Your task to perform on an android device: What's the weather going to be tomorrow? Image 0: 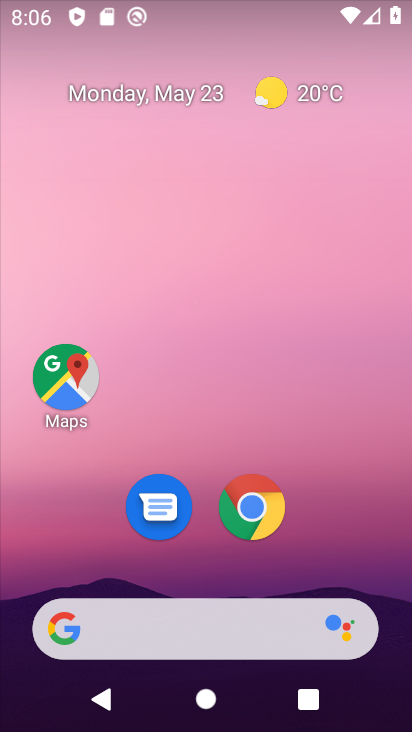
Step 0: click (319, 101)
Your task to perform on an android device: What's the weather going to be tomorrow? Image 1: 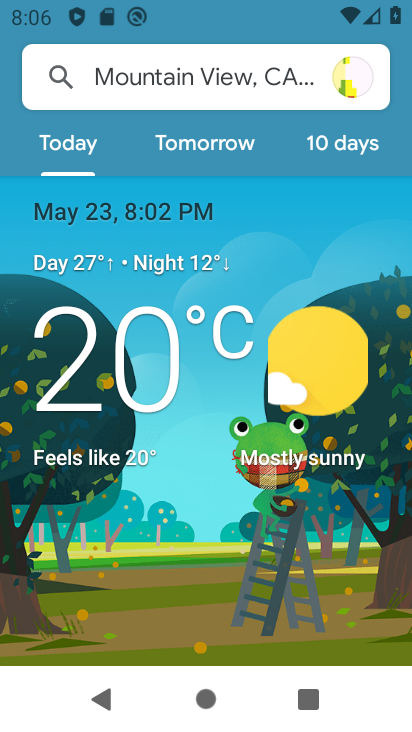
Step 1: click (197, 147)
Your task to perform on an android device: What's the weather going to be tomorrow? Image 2: 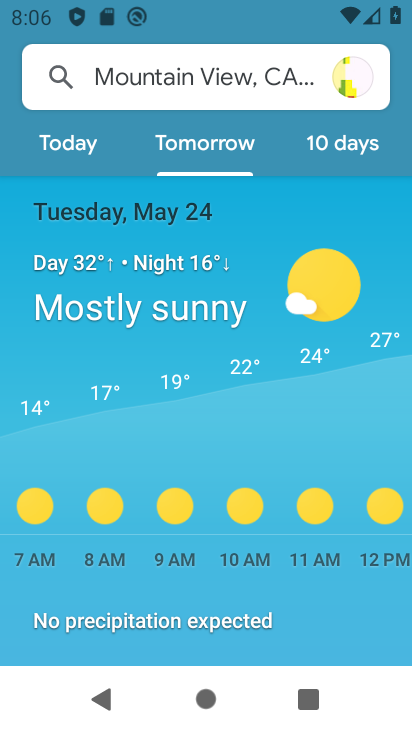
Step 2: task complete